Your task to perform on an android device: set an alarm Image 0: 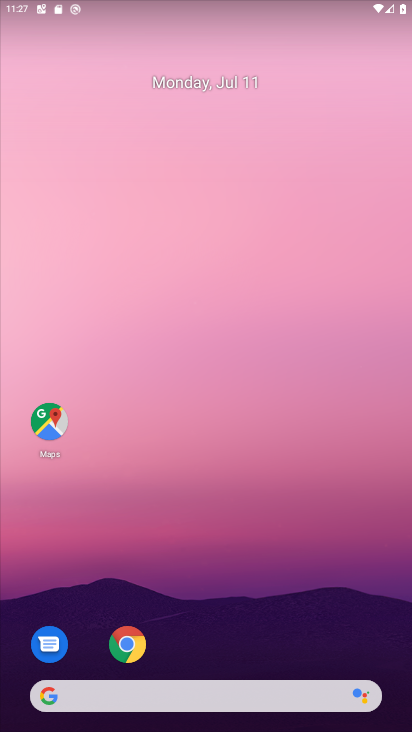
Step 0: drag from (327, 578) to (349, 159)
Your task to perform on an android device: set an alarm Image 1: 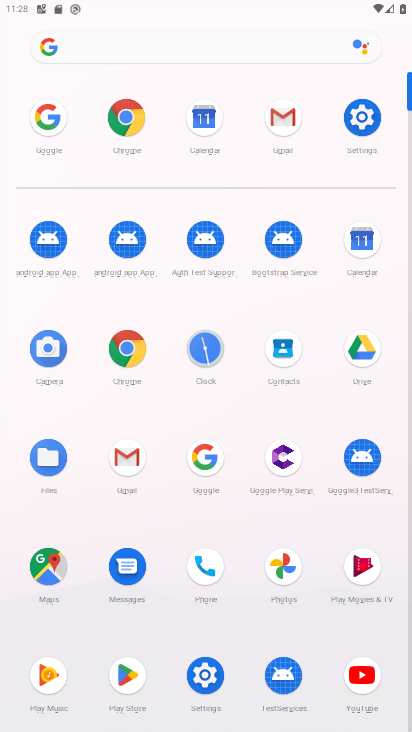
Step 1: click (211, 335)
Your task to perform on an android device: set an alarm Image 2: 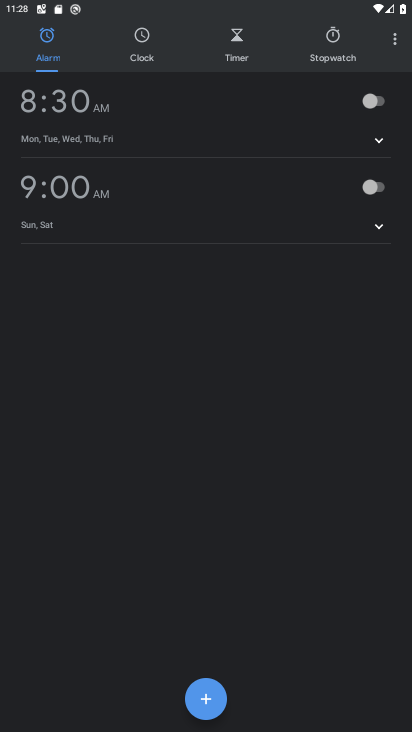
Step 2: click (209, 702)
Your task to perform on an android device: set an alarm Image 3: 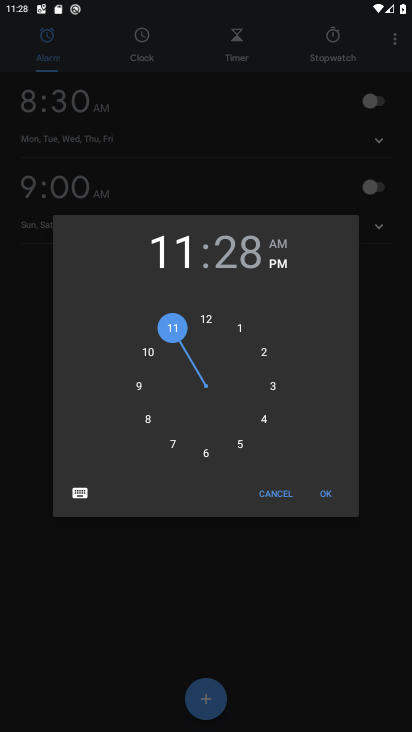
Step 3: click (327, 498)
Your task to perform on an android device: set an alarm Image 4: 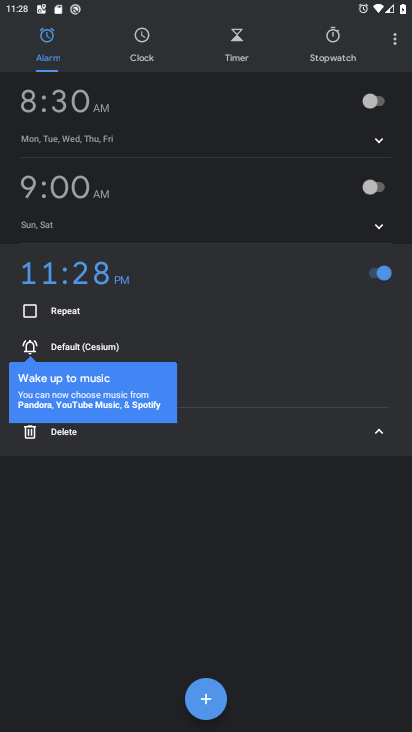
Step 4: click (382, 432)
Your task to perform on an android device: set an alarm Image 5: 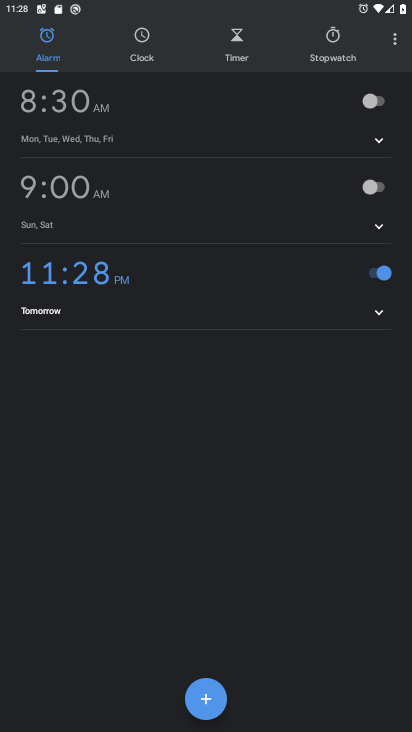
Step 5: task complete